Your task to perform on an android device: turn on showing notifications on the lock screen Image 0: 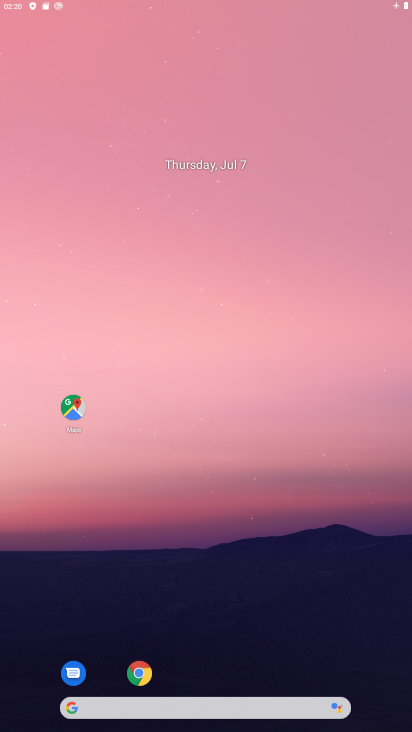
Step 0: click (230, 155)
Your task to perform on an android device: turn on showing notifications on the lock screen Image 1: 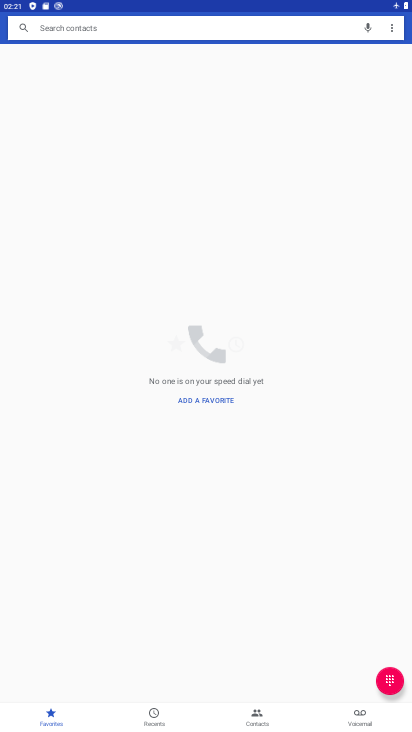
Step 1: press home button
Your task to perform on an android device: turn on showing notifications on the lock screen Image 2: 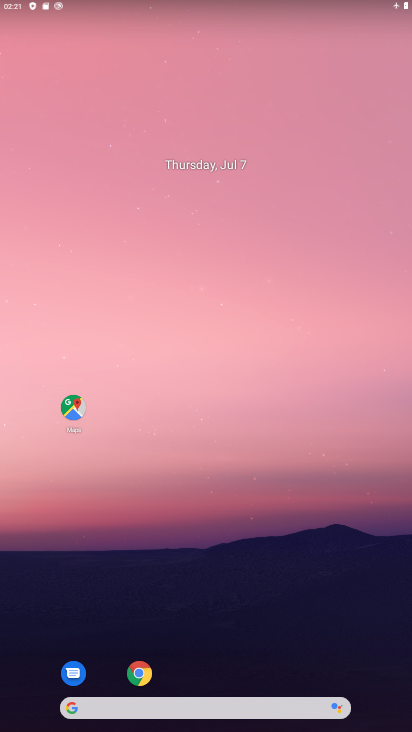
Step 2: drag from (233, 637) to (239, 137)
Your task to perform on an android device: turn on showing notifications on the lock screen Image 3: 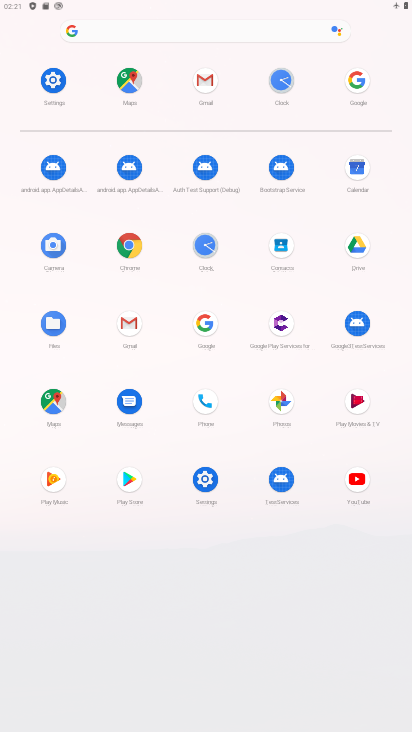
Step 3: click (57, 75)
Your task to perform on an android device: turn on showing notifications on the lock screen Image 4: 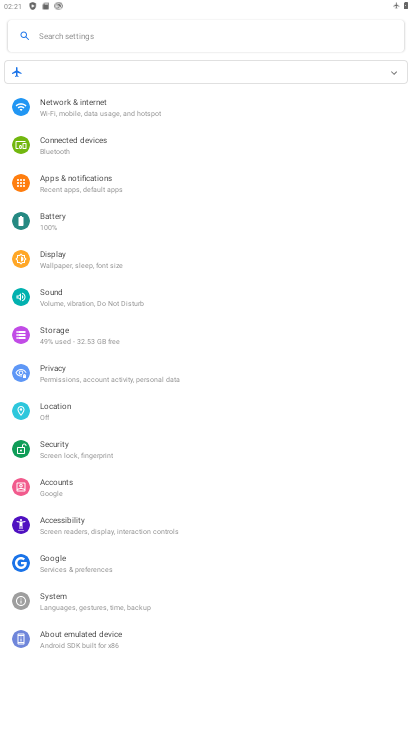
Step 4: click (152, 180)
Your task to perform on an android device: turn on showing notifications on the lock screen Image 5: 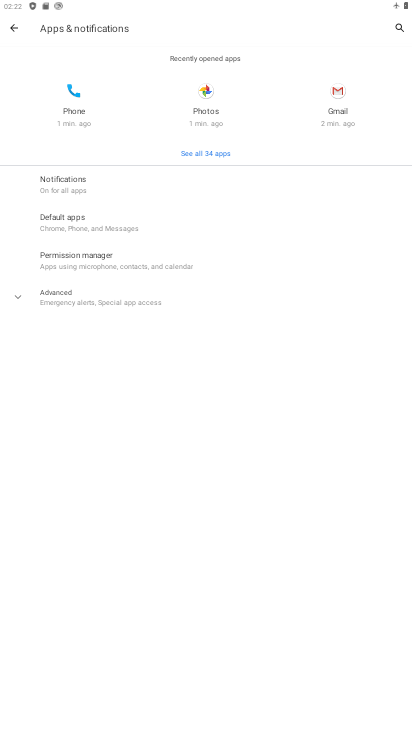
Step 5: click (151, 181)
Your task to perform on an android device: turn on showing notifications on the lock screen Image 6: 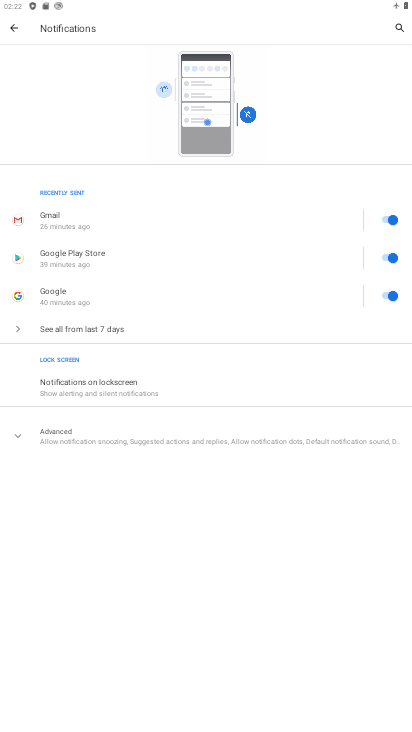
Step 6: click (143, 380)
Your task to perform on an android device: turn on showing notifications on the lock screen Image 7: 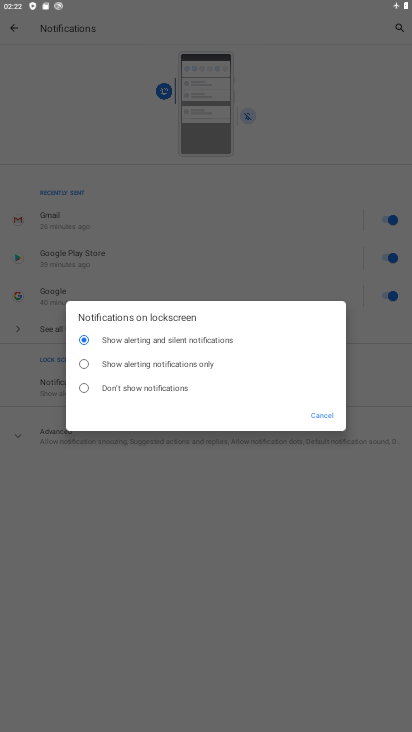
Step 7: task complete